Your task to perform on an android device: set an alarm Image 0: 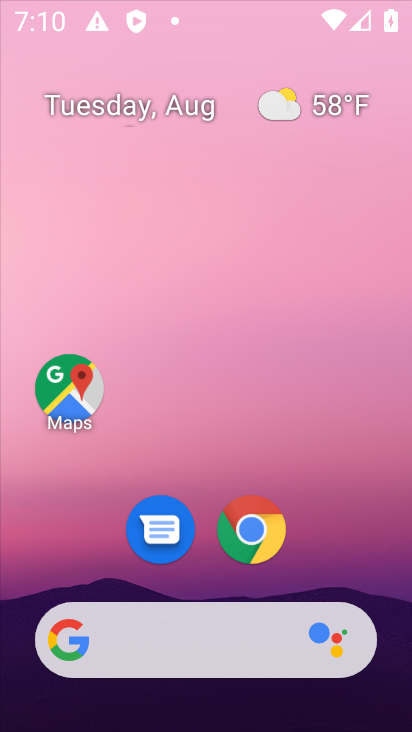
Step 0: press home button
Your task to perform on an android device: set an alarm Image 1: 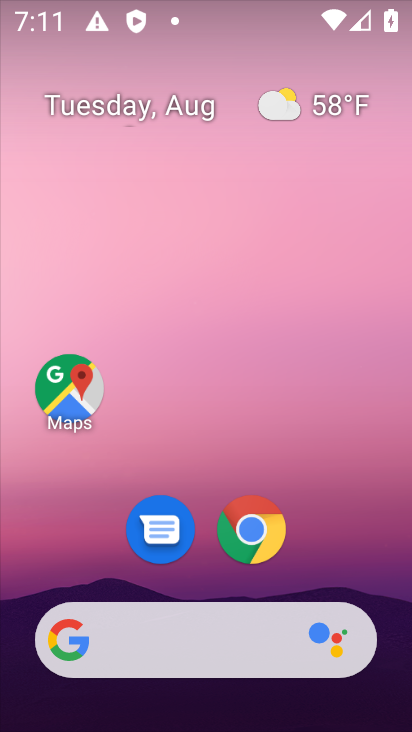
Step 1: drag from (224, 469) to (216, 0)
Your task to perform on an android device: set an alarm Image 2: 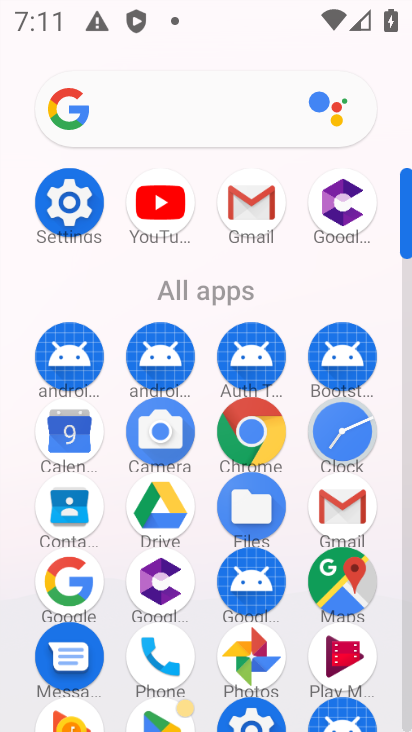
Step 2: click (351, 447)
Your task to perform on an android device: set an alarm Image 3: 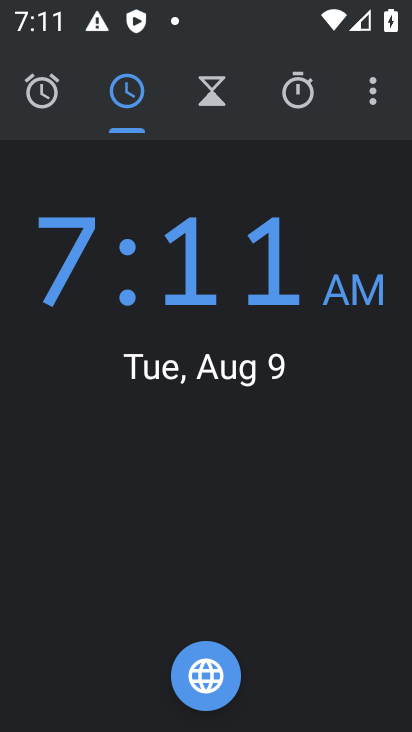
Step 3: click (39, 96)
Your task to perform on an android device: set an alarm Image 4: 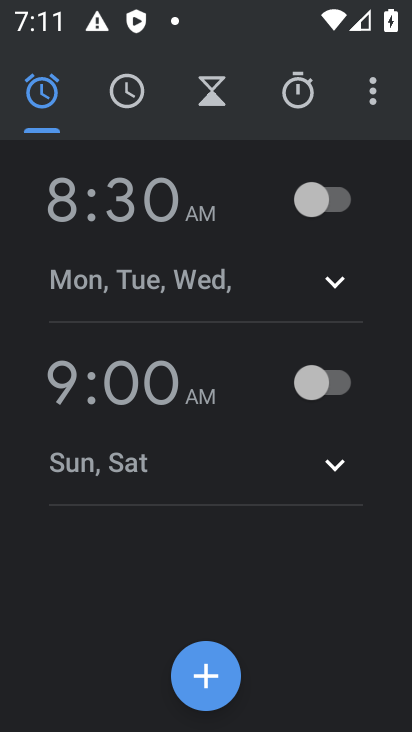
Step 4: click (311, 201)
Your task to perform on an android device: set an alarm Image 5: 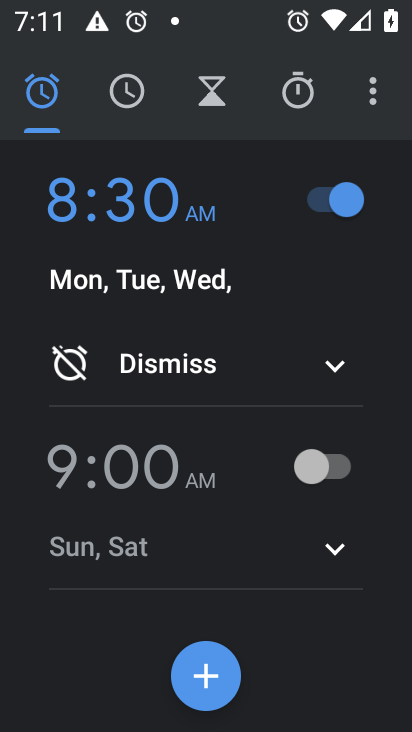
Step 5: task complete